Your task to perform on an android device: Check the news Image 0: 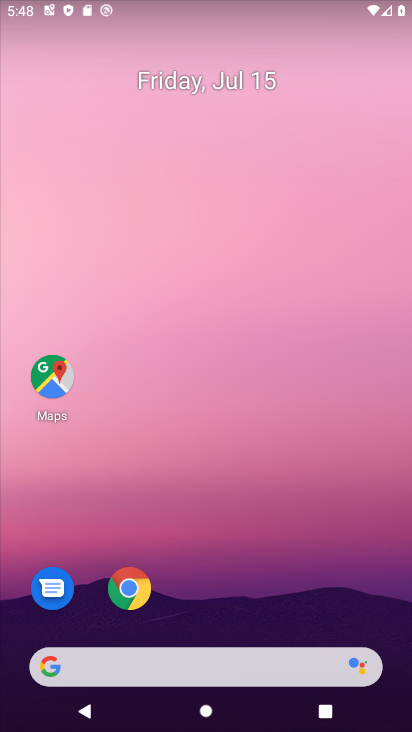
Step 0: drag from (319, 673) to (306, 67)
Your task to perform on an android device: Check the news Image 1: 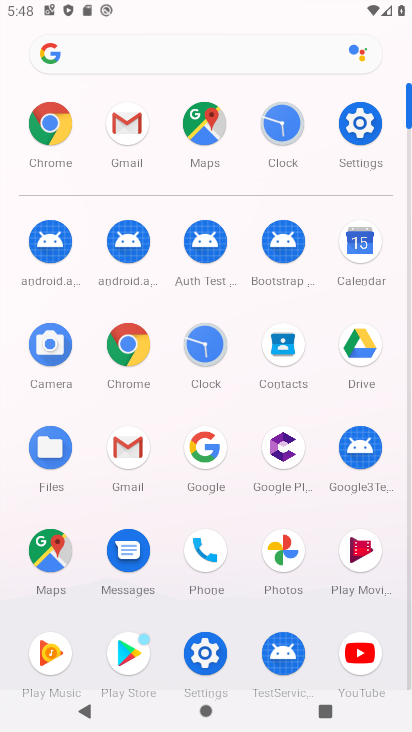
Step 1: click (121, 342)
Your task to perform on an android device: Check the news Image 2: 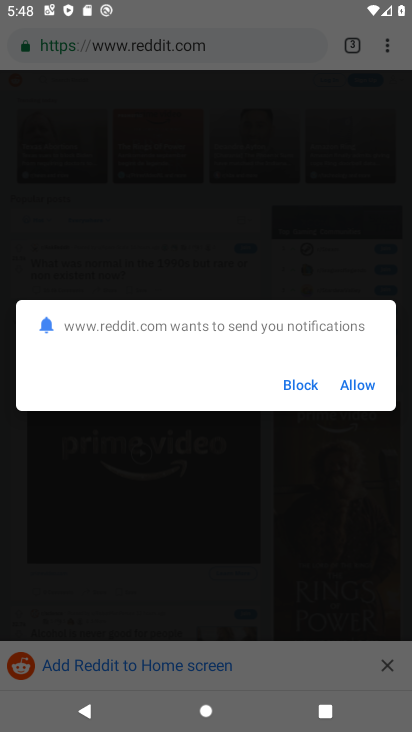
Step 2: click (192, 58)
Your task to perform on an android device: Check the news Image 3: 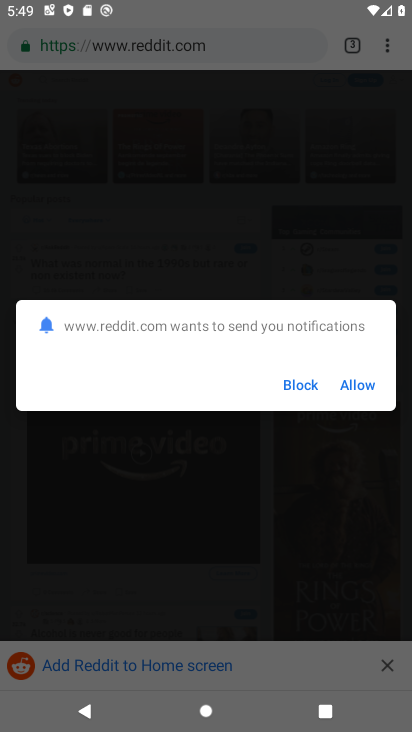
Step 3: press back button
Your task to perform on an android device: Check the news Image 4: 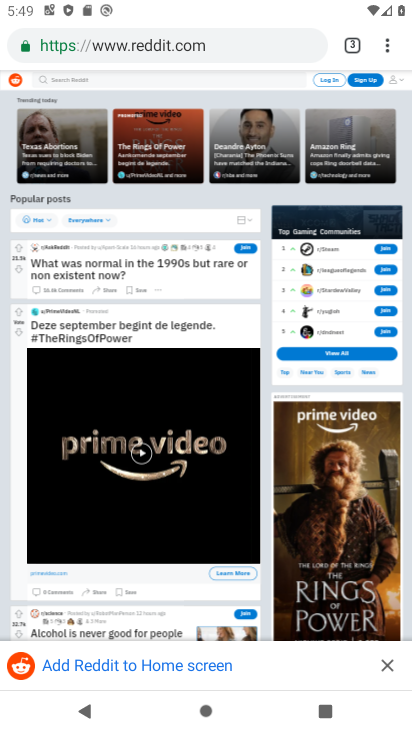
Step 4: click (188, 49)
Your task to perform on an android device: Check the news Image 5: 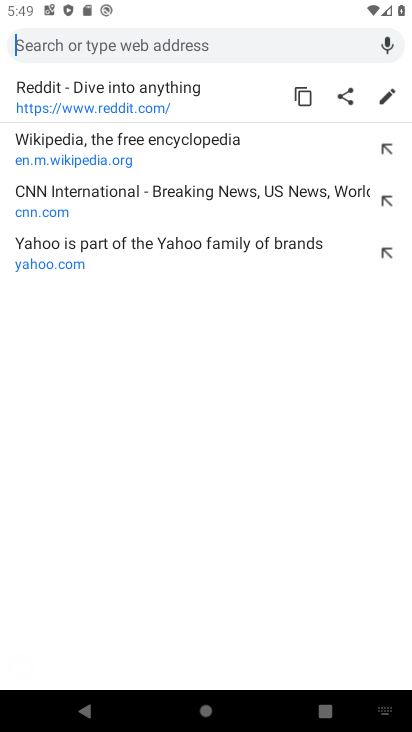
Step 5: type "check the news"
Your task to perform on an android device: Check the news Image 6: 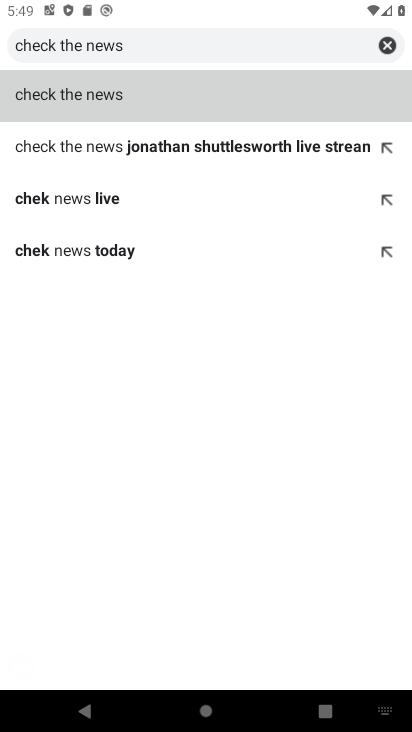
Step 6: click (234, 80)
Your task to perform on an android device: Check the news Image 7: 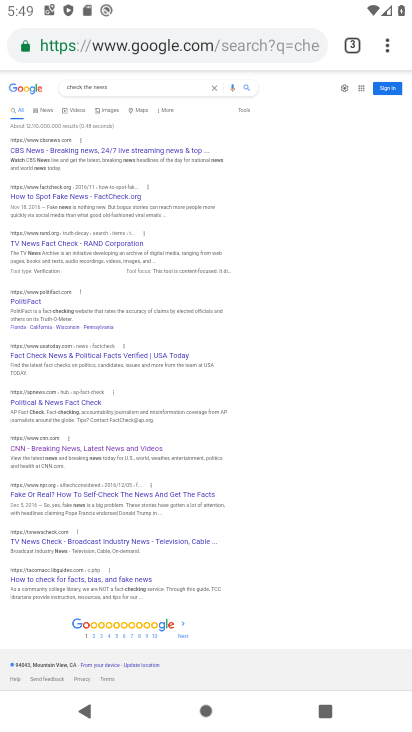
Step 7: task complete